Your task to perform on an android device: Open network settings Image 0: 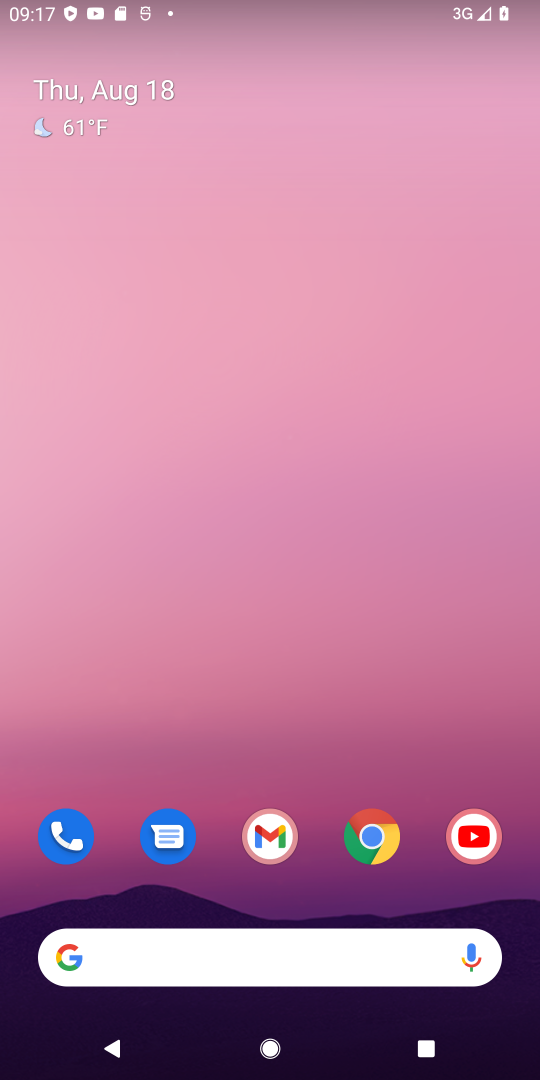
Step 0: drag from (377, 518) to (457, 16)
Your task to perform on an android device: Open network settings Image 1: 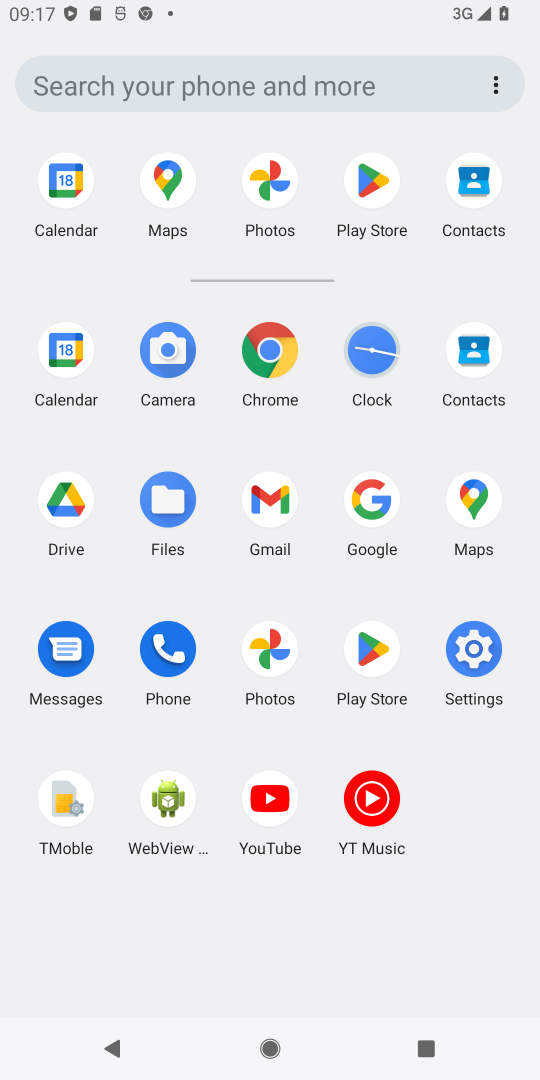
Step 1: click (478, 649)
Your task to perform on an android device: Open network settings Image 2: 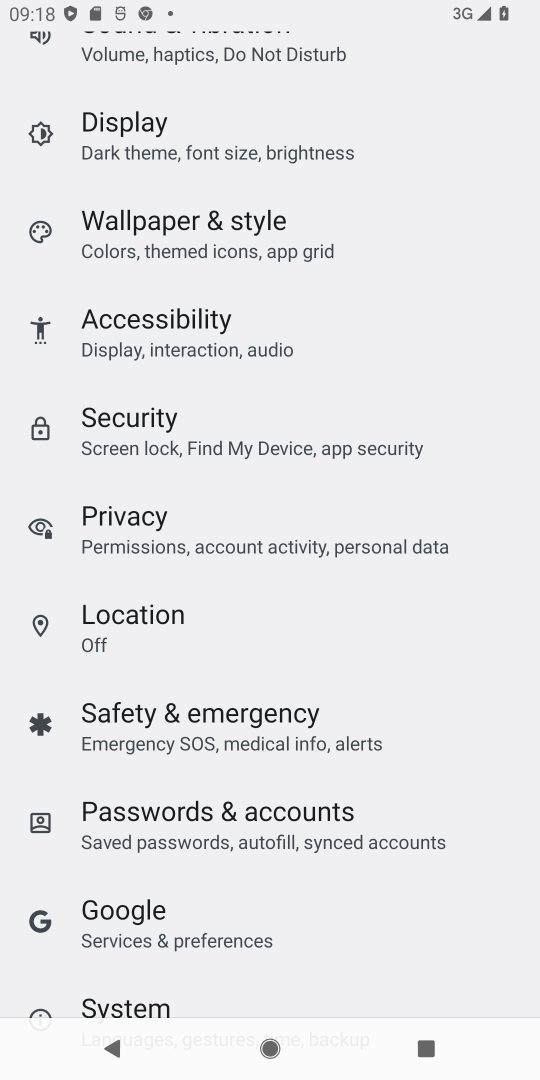
Step 2: drag from (321, 228) to (211, 760)
Your task to perform on an android device: Open network settings Image 3: 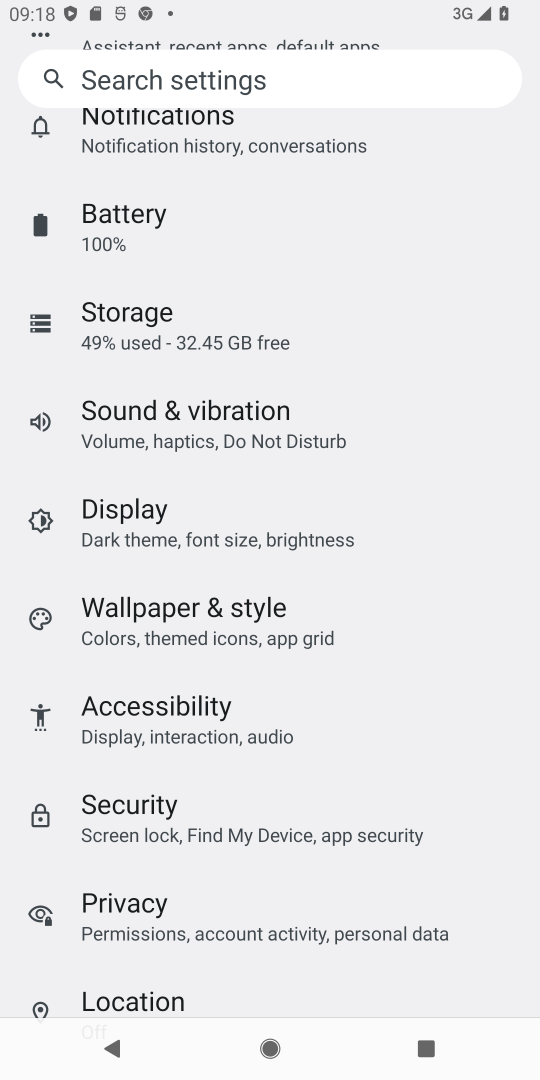
Step 3: drag from (226, 194) to (188, 735)
Your task to perform on an android device: Open network settings Image 4: 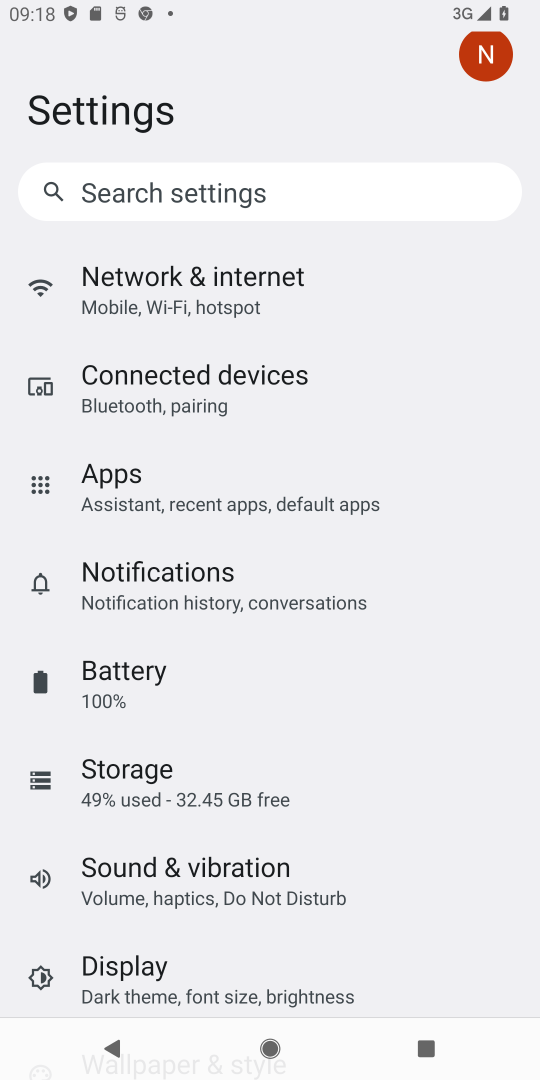
Step 4: click (205, 318)
Your task to perform on an android device: Open network settings Image 5: 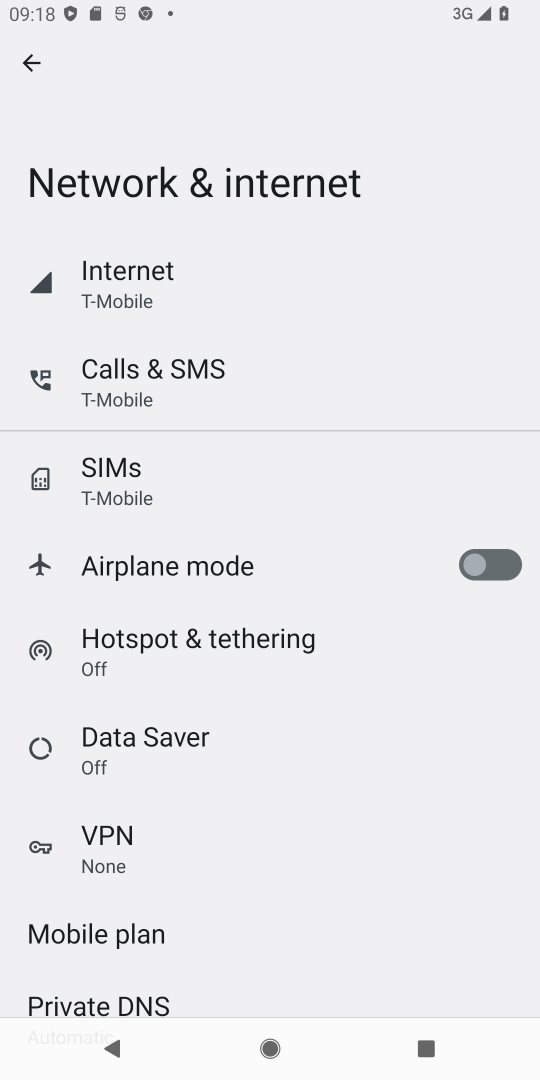
Step 5: task complete